Your task to perform on an android device: visit the assistant section in the google photos Image 0: 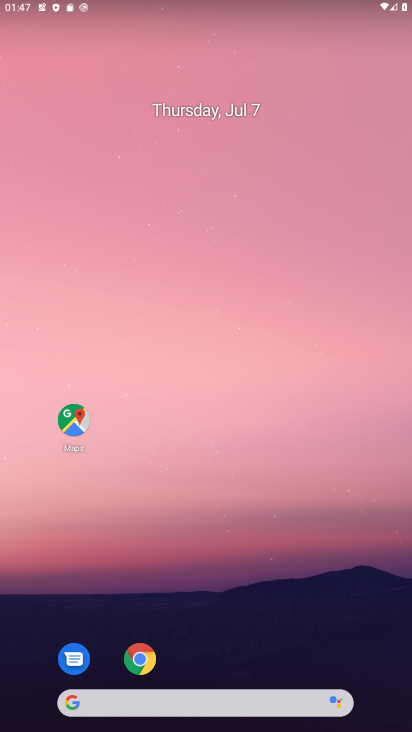
Step 0: drag from (190, 622) to (196, 115)
Your task to perform on an android device: visit the assistant section in the google photos Image 1: 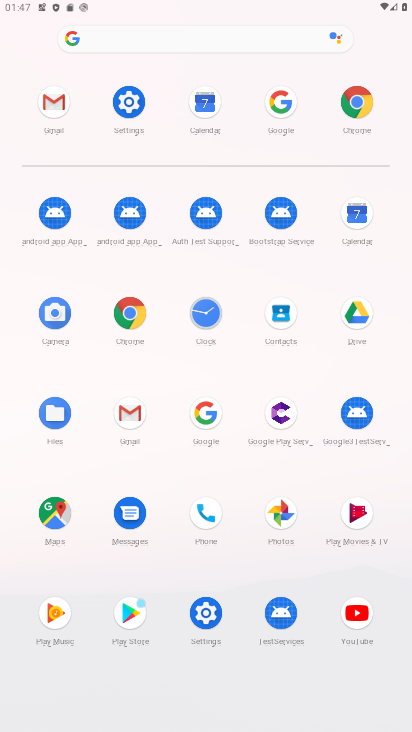
Step 1: click (286, 518)
Your task to perform on an android device: visit the assistant section in the google photos Image 2: 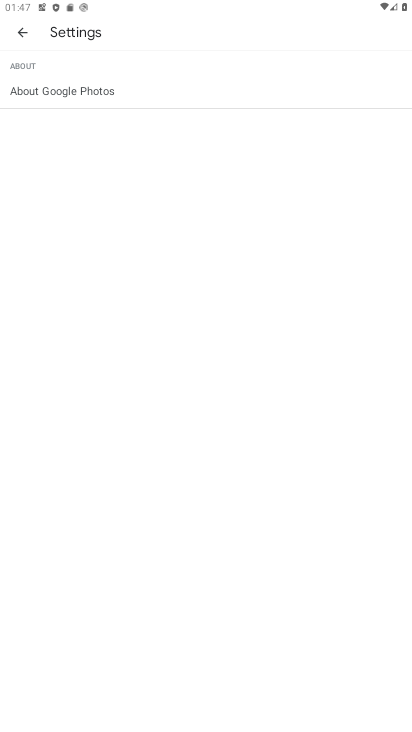
Step 2: press back button
Your task to perform on an android device: visit the assistant section in the google photos Image 3: 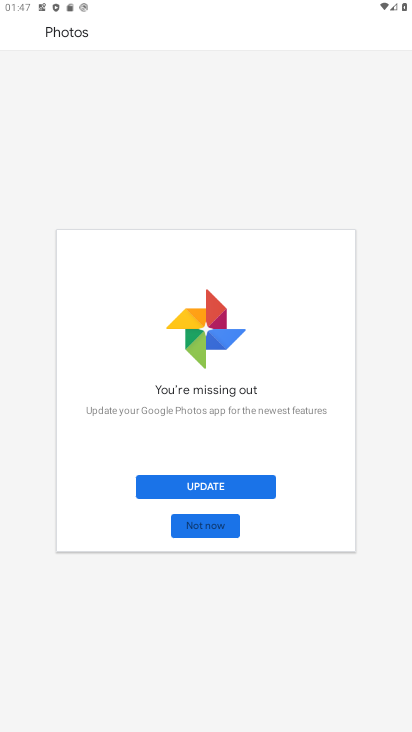
Step 3: click (199, 487)
Your task to perform on an android device: visit the assistant section in the google photos Image 4: 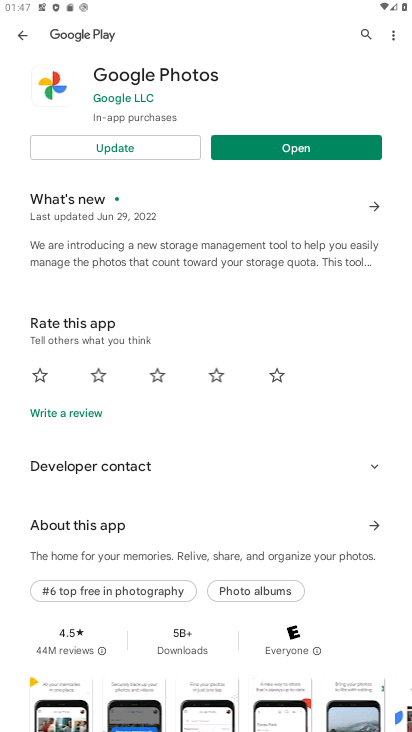
Step 4: click (41, 141)
Your task to perform on an android device: visit the assistant section in the google photos Image 5: 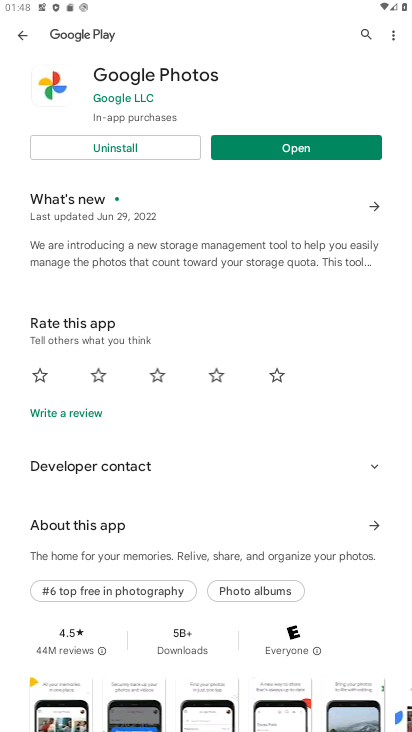
Step 5: click (275, 145)
Your task to perform on an android device: visit the assistant section in the google photos Image 6: 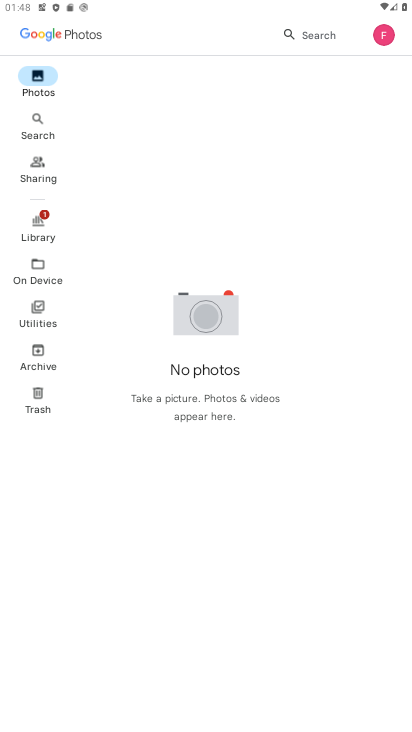
Step 6: task complete